Your task to perform on an android device: install app "Adobe Acrobat Reader" Image 0: 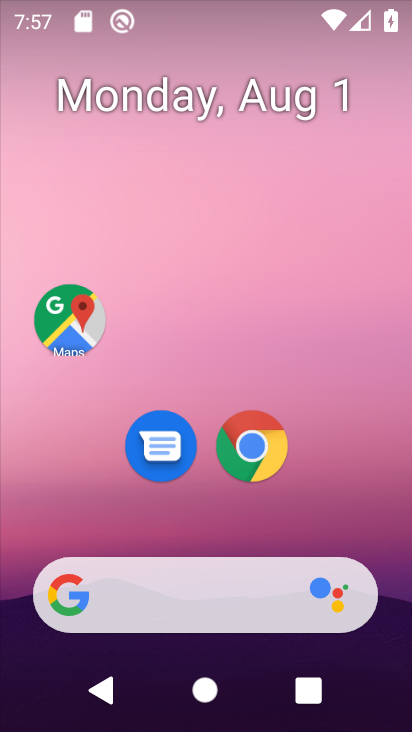
Step 0: drag from (218, 512) to (296, 21)
Your task to perform on an android device: install app "Adobe Acrobat Reader" Image 1: 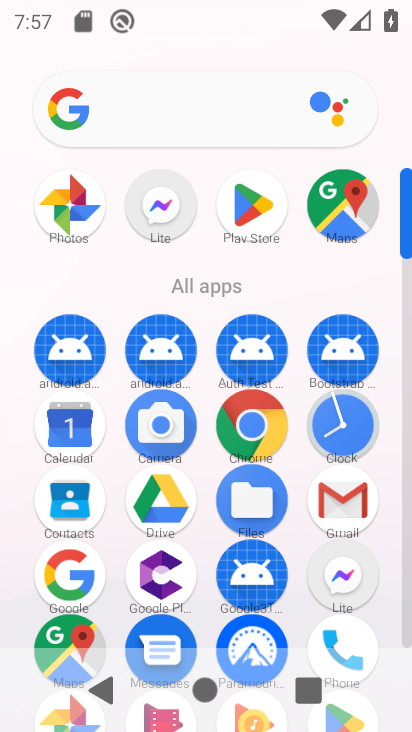
Step 1: click (251, 194)
Your task to perform on an android device: install app "Adobe Acrobat Reader" Image 2: 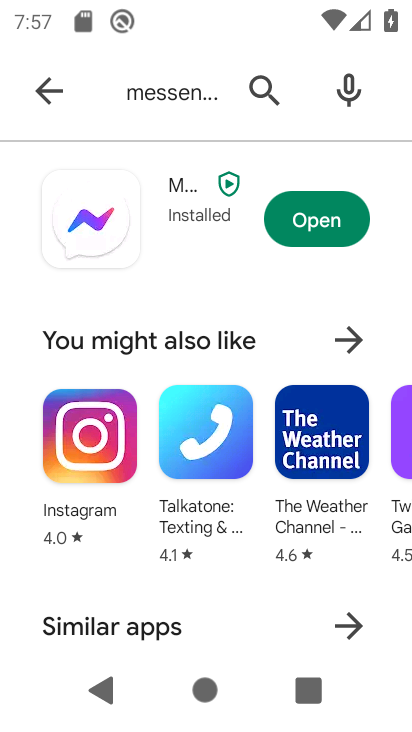
Step 2: click (257, 77)
Your task to perform on an android device: install app "Adobe Acrobat Reader" Image 3: 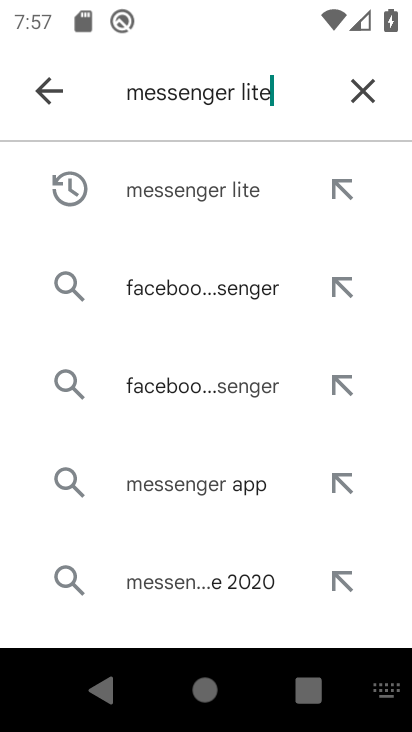
Step 3: click (363, 89)
Your task to perform on an android device: install app "Adobe Acrobat Reader" Image 4: 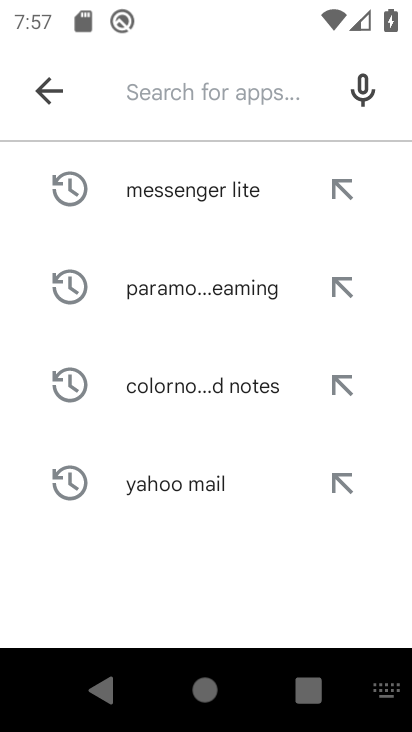
Step 4: type "Adobe Acrobat Reader"
Your task to perform on an android device: install app "Adobe Acrobat Reader" Image 5: 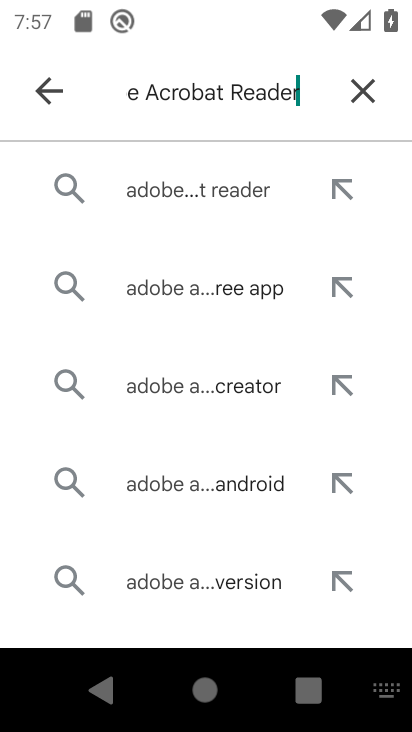
Step 5: click (189, 198)
Your task to perform on an android device: install app "Adobe Acrobat Reader" Image 6: 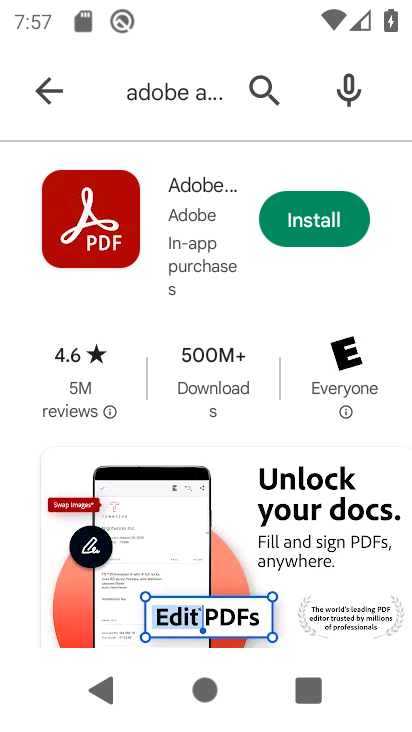
Step 6: click (322, 207)
Your task to perform on an android device: install app "Adobe Acrobat Reader" Image 7: 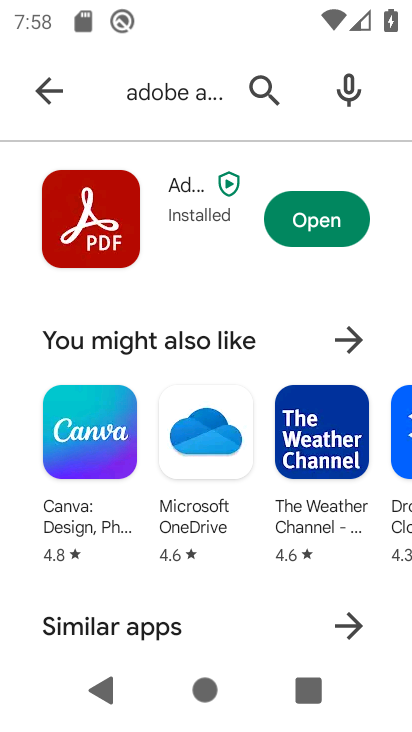
Step 7: task complete